Your task to perform on an android device: find which apps use the phone's location Image 0: 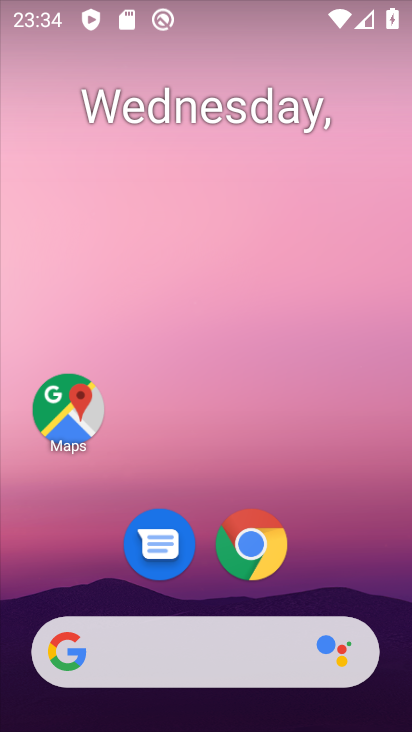
Step 0: drag from (382, 681) to (372, 332)
Your task to perform on an android device: find which apps use the phone's location Image 1: 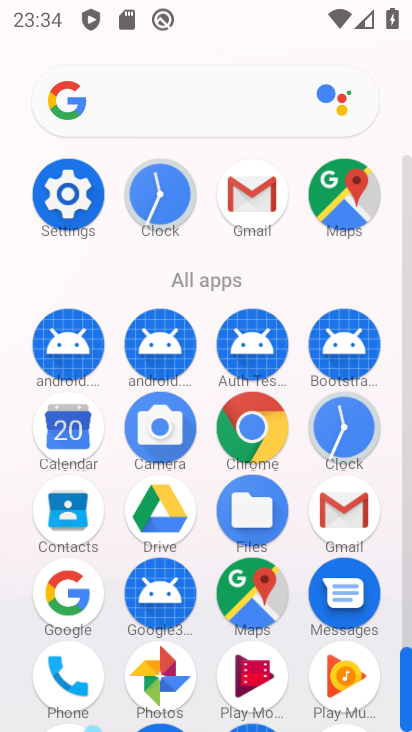
Step 1: drag from (406, 691) to (388, 731)
Your task to perform on an android device: find which apps use the phone's location Image 2: 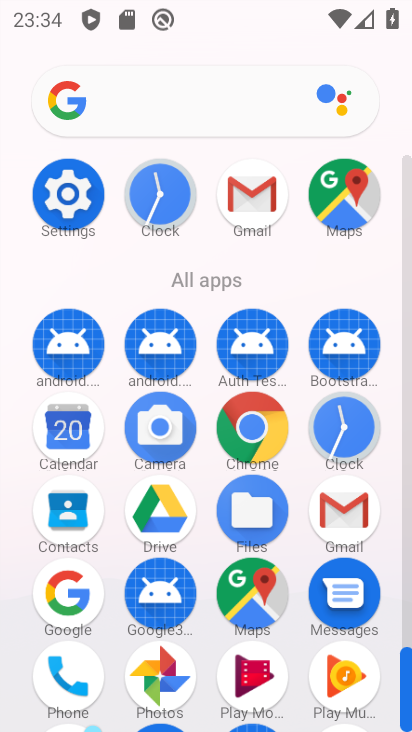
Step 2: drag from (383, 633) to (371, 300)
Your task to perform on an android device: find which apps use the phone's location Image 3: 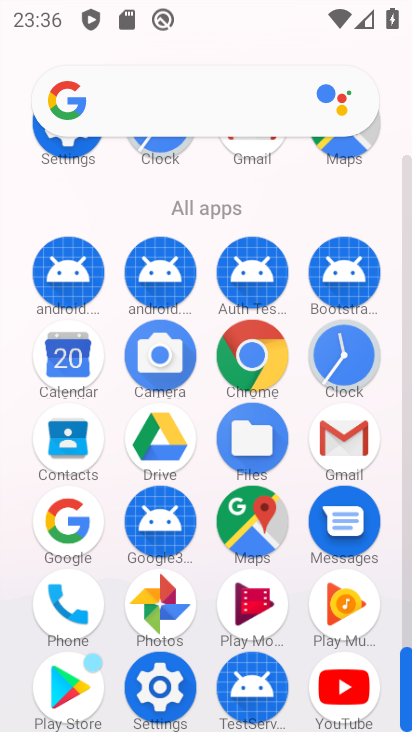
Step 3: drag from (391, 521) to (401, 337)
Your task to perform on an android device: find which apps use the phone's location Image 4: 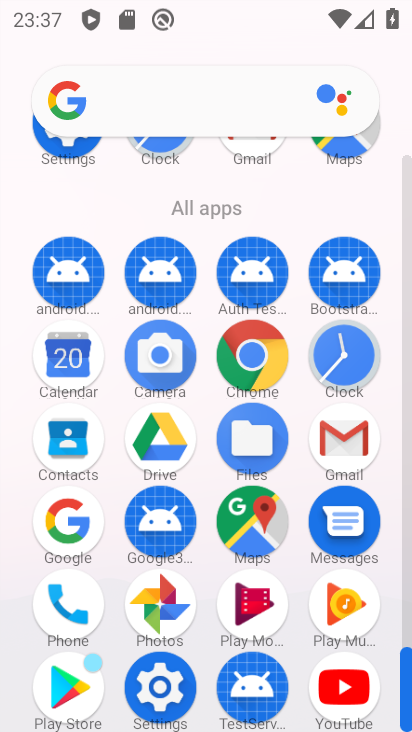
Step 4: click (62, 597)
Your task to perform on an android device: find which apps use the phone's location Image 5: 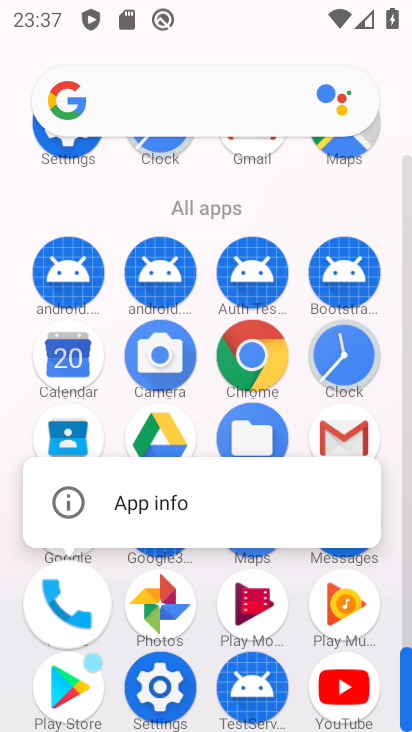
Step 5: click (109, 526)
Your task to perform on an android device: find which apps use the phone's location Image 6: 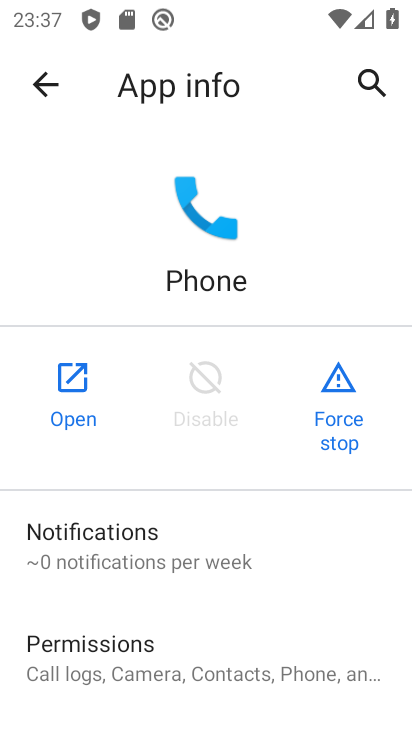
Step 6: click (171, 654)
Your task to perform on an android device: find which apps use the phone's location Image 7: 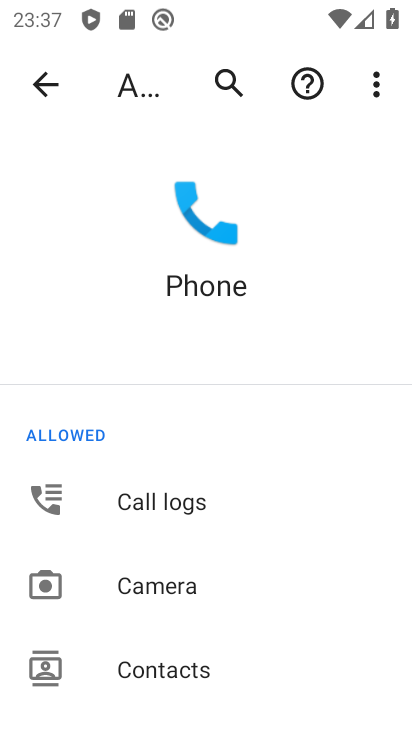
Step 7: task complete